Your task to perform on an android device: turn on location history Image 0: 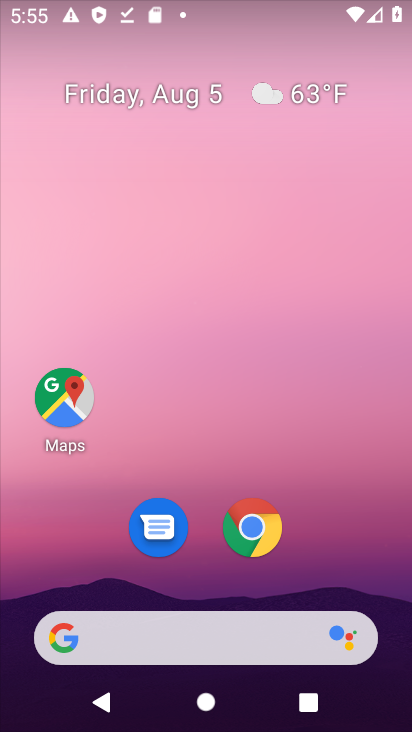
Step 0: drag from (212, 581) to (311, 186)
Your task to perform on an android device: turn on location history Image 1: 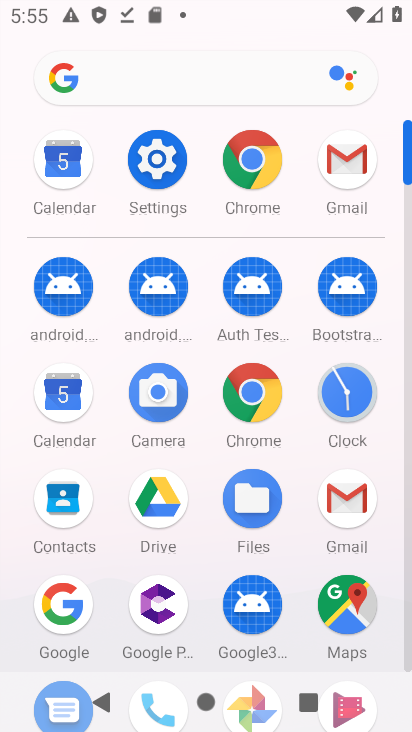
Step 1: click (163, 168)
Your task to perform on an android device: turn on location history Image 2: 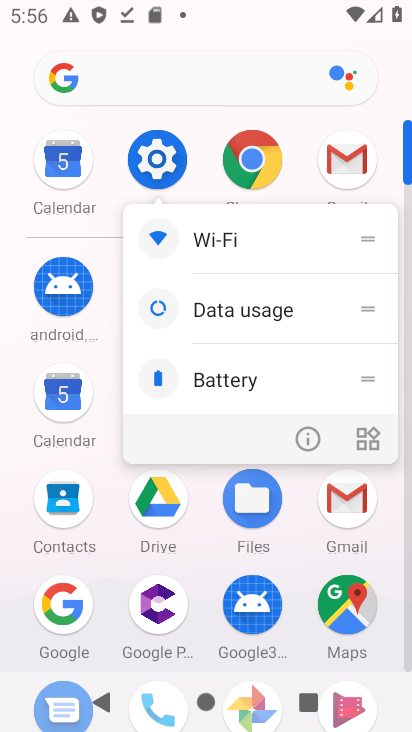
Step 2: click (295, 427)
Your task to perform on an android device: turn on location history Image 3: 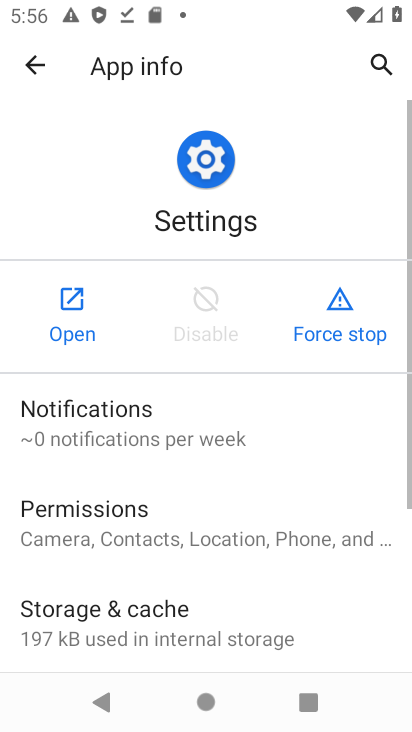
Step 3: click (80, 288)
Your task to perform on an android device: turn on location history Image 4: 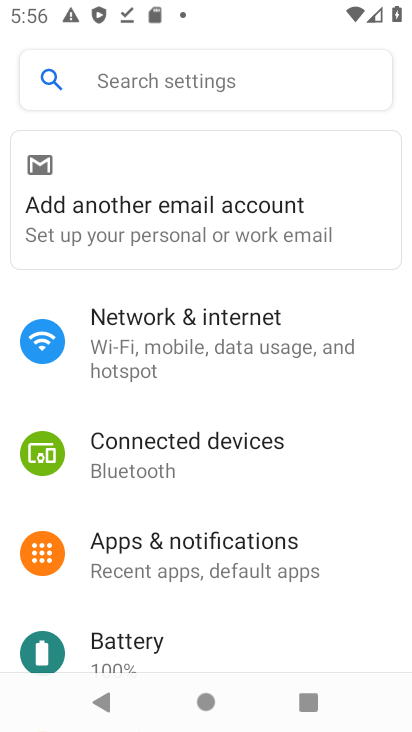
Step 4: drag from (245, 578) to (366, 119)
Your task to perform on an android device: turn on location history Image 5: 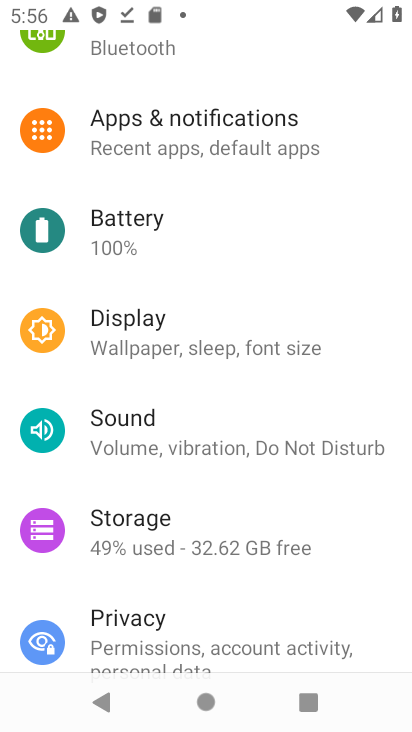
Step 5: drag from (297, 615) to (312, 90)
Your task to perform on an android device: turn on location history Image 6: 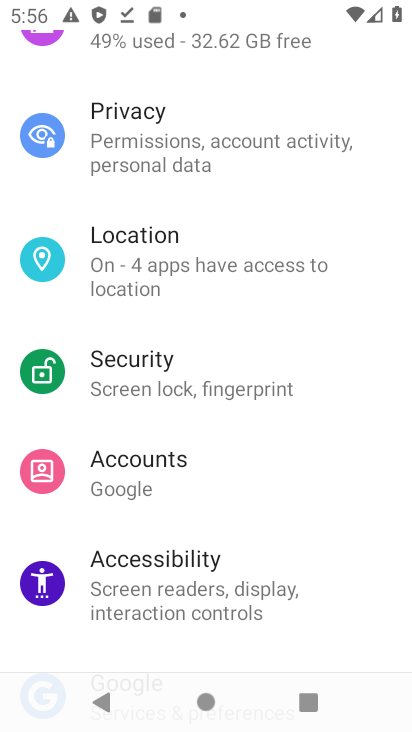
Step 6: drag from (124, 573) to (198, 211)
Your task to perform on an android device: turn on location history Image 7: 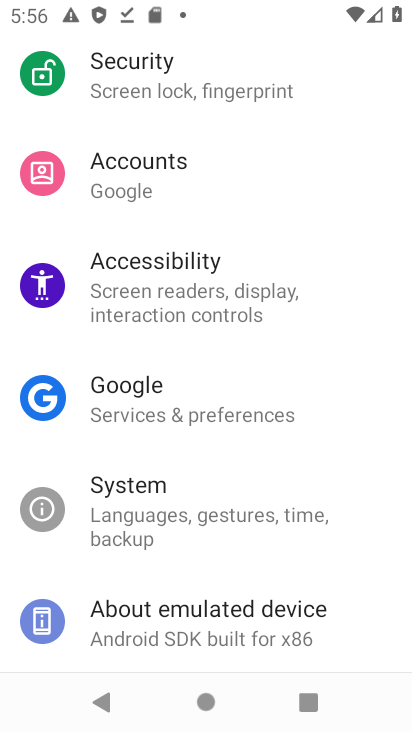
Step 7: drag from (210, 288) to (215, 639)
Your task to perform on an android device: turn on location history Image 8: 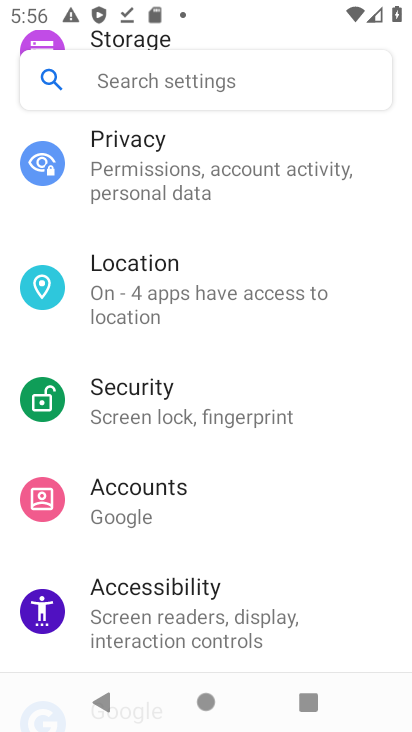
Step 8: click (169, 301)
Your task to perform on an android device: turn on location history Image 9: 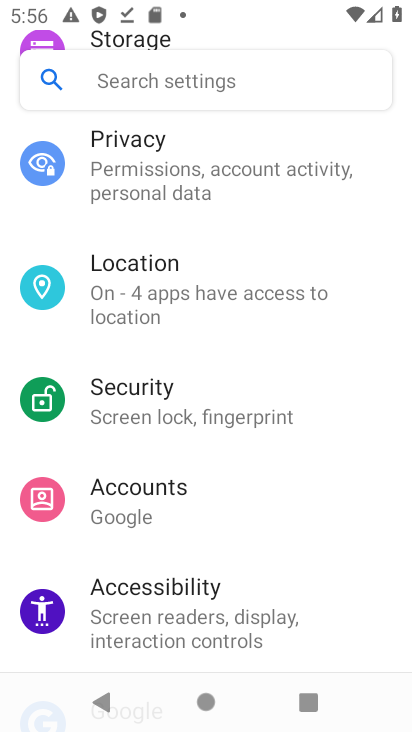
Step 9: click (169, 301)
Your task to perform on an android device: turn on location history Image 10: 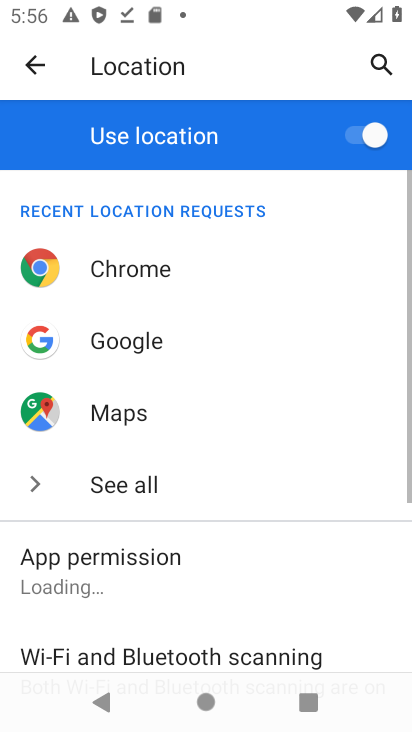
Step 10: drag from (224, 627) to (259, 265)
Your task to perform on an android device: turn on location history Image 11: 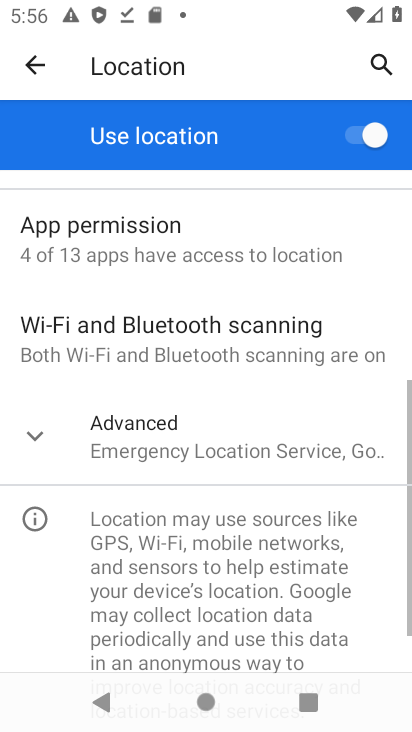
Step 11: click (175, 437)
Your task to perform on an android device: turn on location history Image 12: 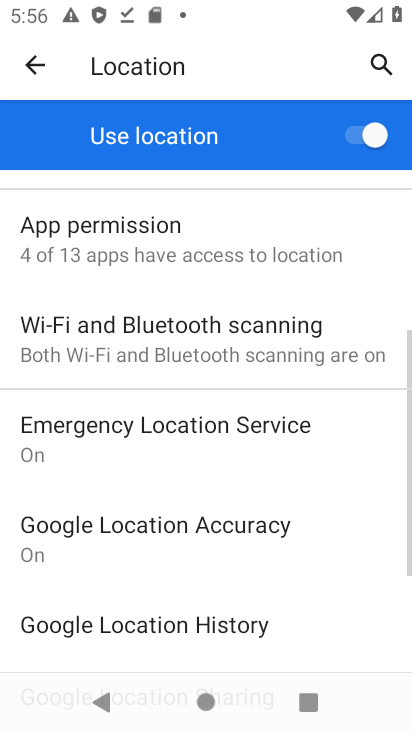
Step 12: drag from (207, 524) to (264, 277)
Your task to perform on an android device: turn on location history Image 13: 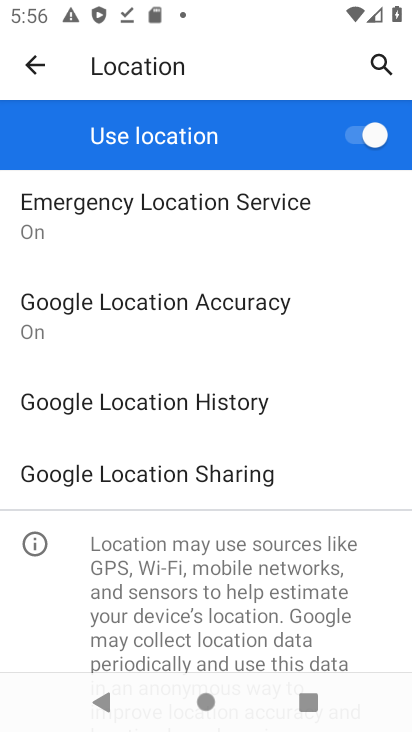
Step 13: click (217, 398)
Your task to perform on an android device: turn on location history Image 14: 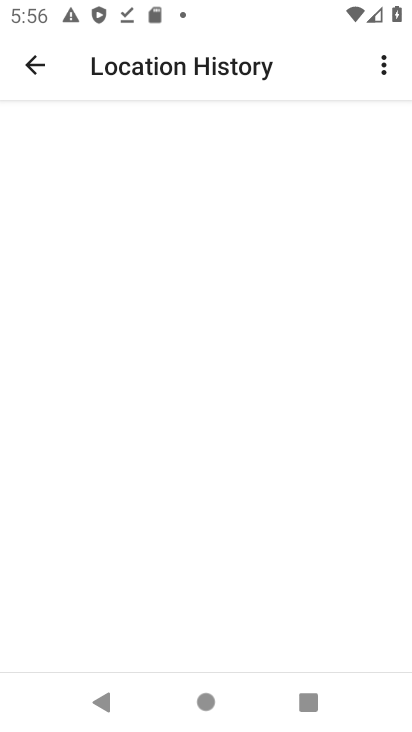
Step 14: drag from (235, 481) to (290, 138)
Your task to perform on an android device: turn on location history Image 15: 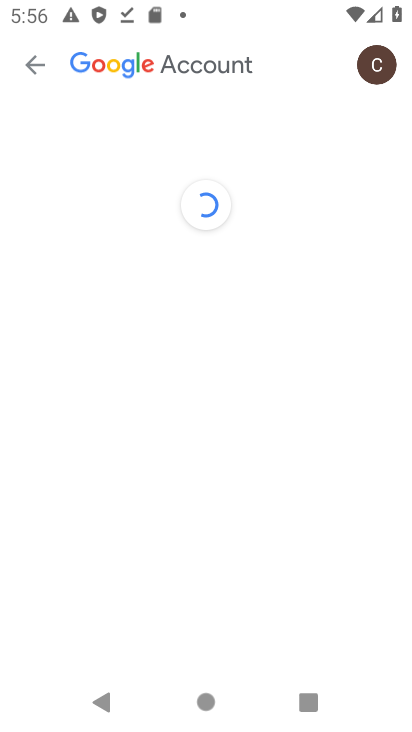
Step 15: drag from (242, 267) to (330, 566)
Your task to perform on an android device: turn on location history Image 16: 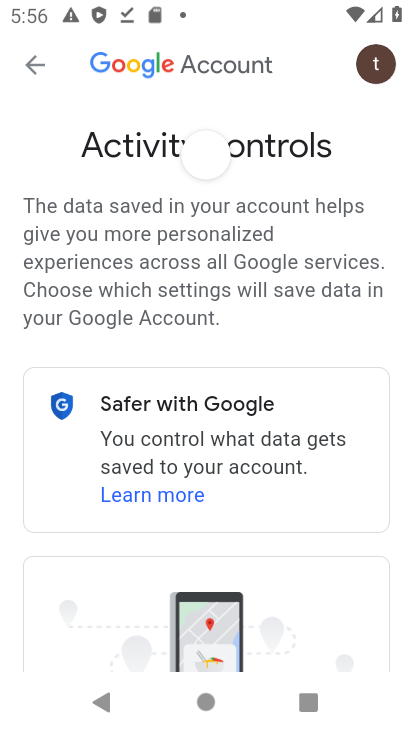
Step 16: drag from (253, 518) to (352, 97)
Your task to perform on an android device: turn on location history Image 17: 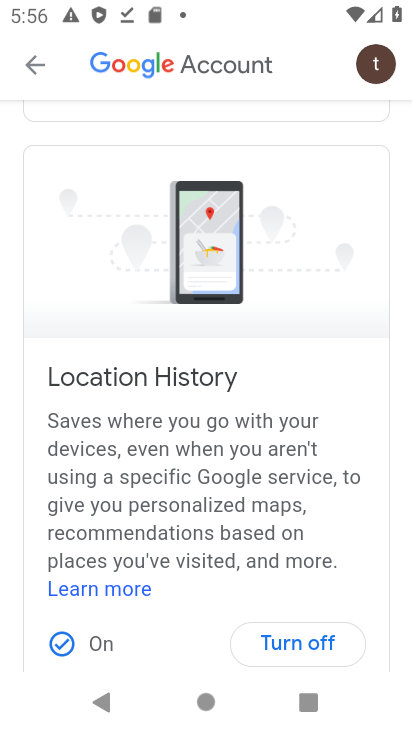
Step 17: drag from (220, 504) to (260, 315)
Your task to perform on an android device: turn on location history Image 18: 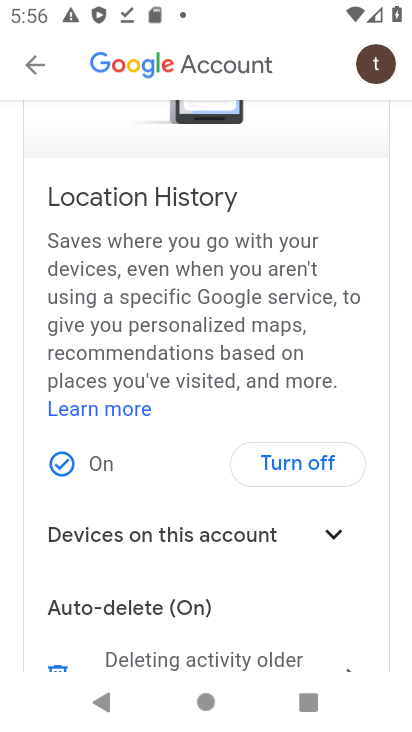
Step 18: click (96, 469)
Your task to perform on an android device: turn on location history Image 19: 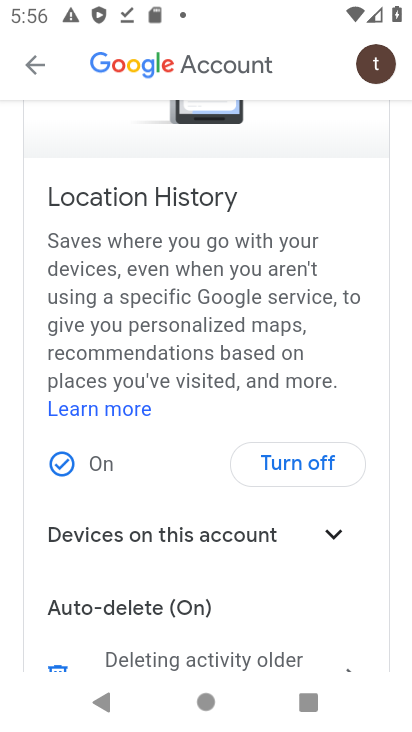
Step 19: task complete